Your task to perform on an android device: Go to Google Image 0: 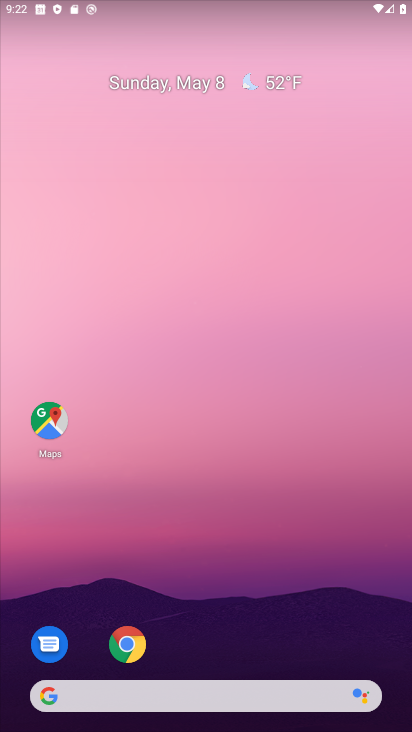
Step 0: drag from (219, 641) to (235, 103)
Your task to perform on an android device: Go to Google Image 1: 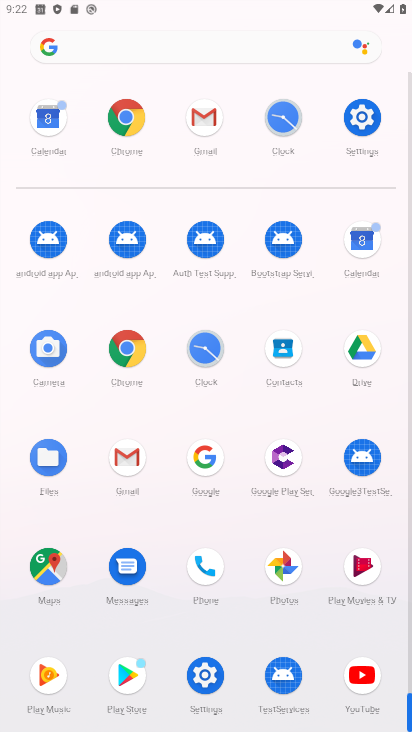
Step 1: click (210, 460)
Your task to perform on an android device: Go to Google Image 2: 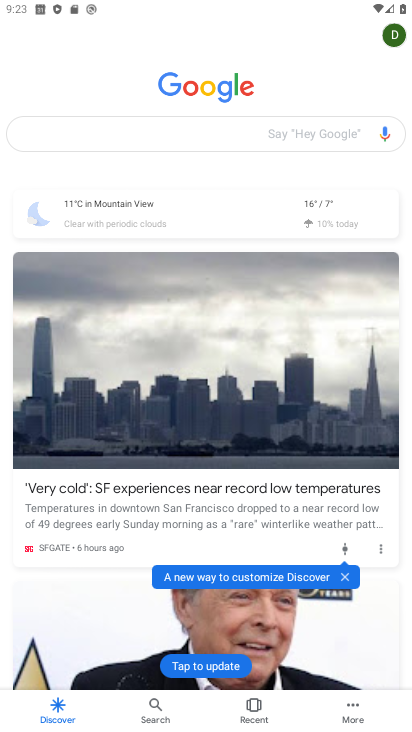
Step 2: task complete